Your task to perform on an android device: See recent photos Image 0: 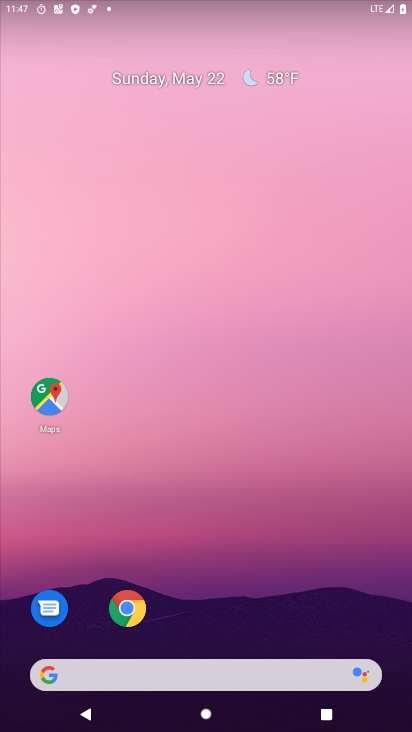
Step 0: drag from (283, 632) to (237, 55)
Your task to perform on an android device: See recent photos Image 1: 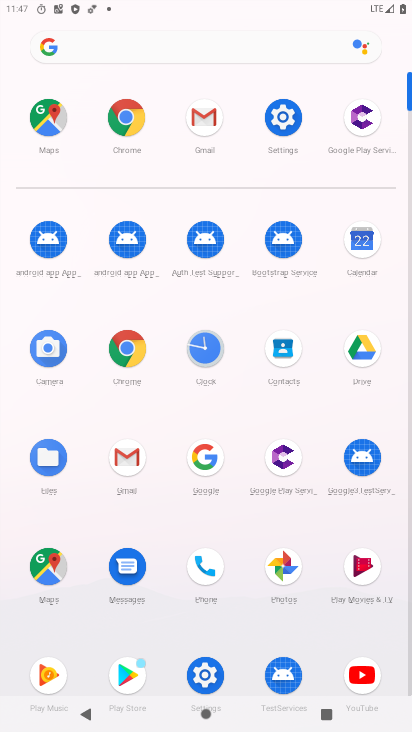
Step 1: click (294, 569)
Your task to perform on an android device: See recent photos Image 2: 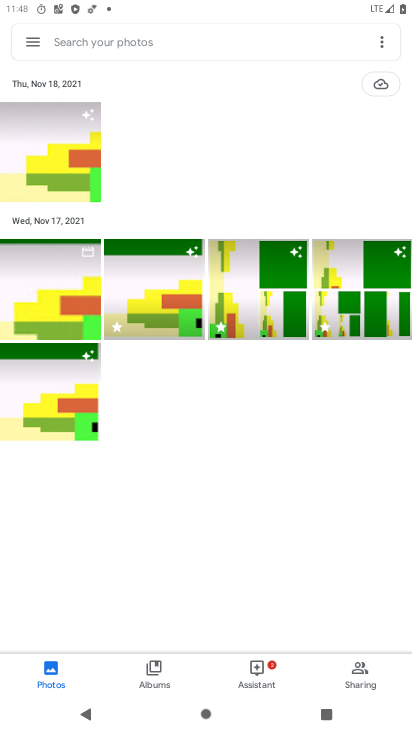
Step 2: task complete